Your task to perform on an android device: turn vacation reply on in the gmail app Image 0: 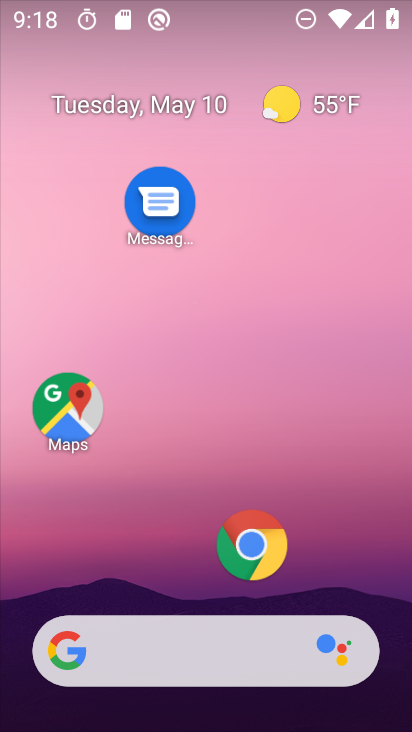
Step 0: drag from (186, 532) to (213, 173)
Your task to perform on an android device: turn vacation reply on in the gmail app Image 1: 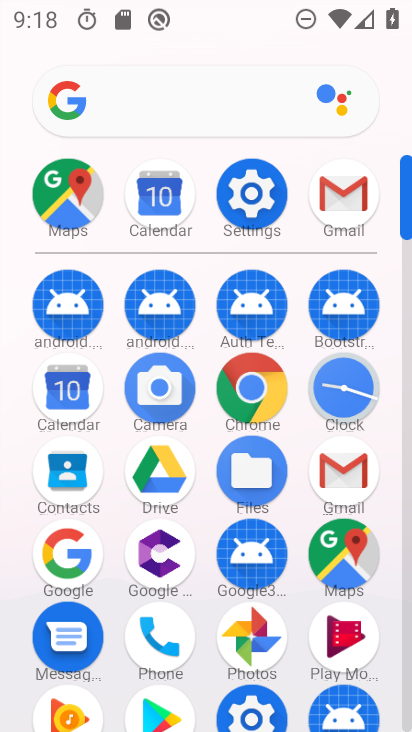
Step 1: click (338, 218)
Your task to perform on an android device: turn vacation reply on in the gmail app Image 2: 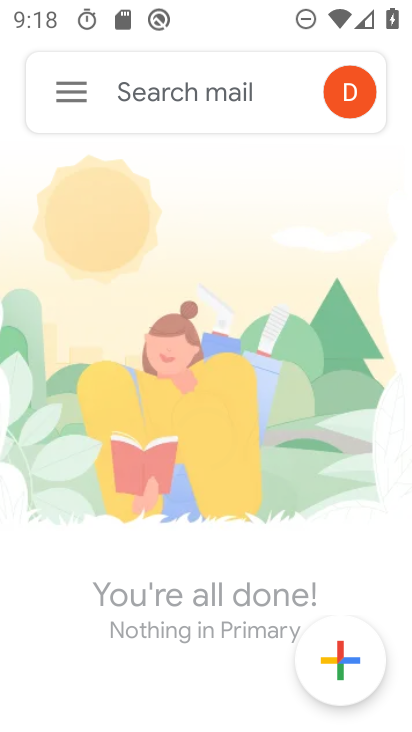
Step 2: click (77, 85)
Your task to perform on an android device: turn vacation reply on in the gmail app Image 3: 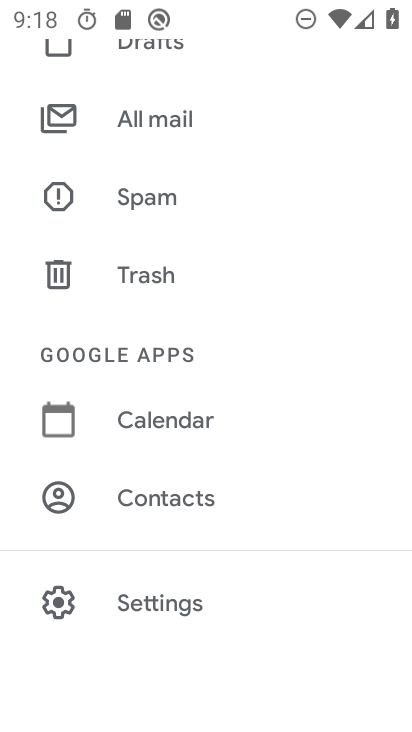
Step 3: click (152, 599)
Your task to perform on an android device: turn vacation reply on in the gmail app Image 4: 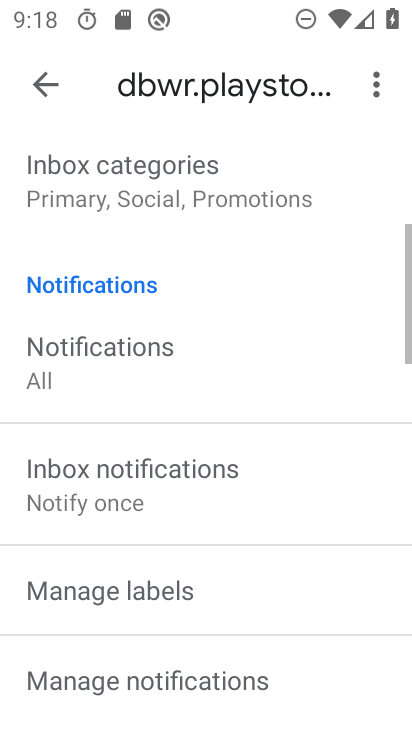
Step 4: drag from (184, 600) to (244, 219)
Your task to perform on an android device: turn vacation reply on in the gmail app Image 5: 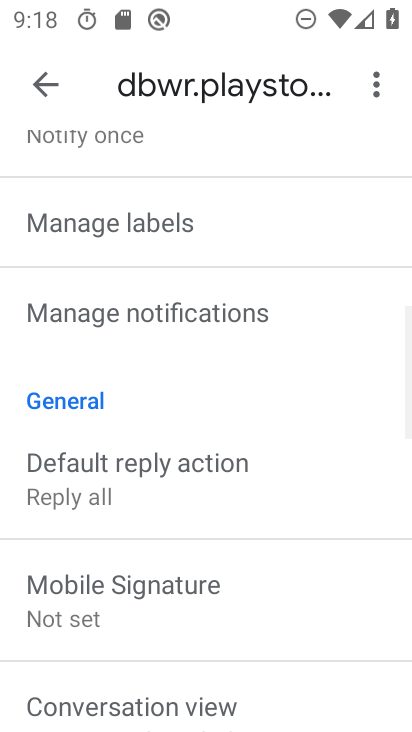
Step 5: drag from (146, 657) to (277, 204)
Your task to perform on an android device: turn vacation reply on in the gmail app Image 6: 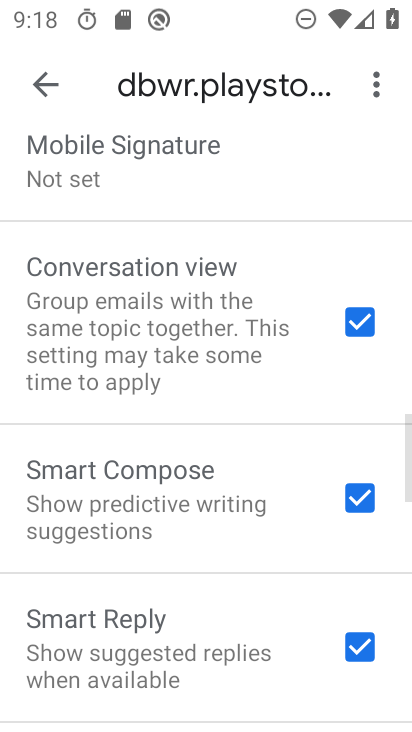
Step 6: drag from (221, 584) to (274, 243)
Your task to perform on an android device: turn vacation reply on in the gmail app Image 7: 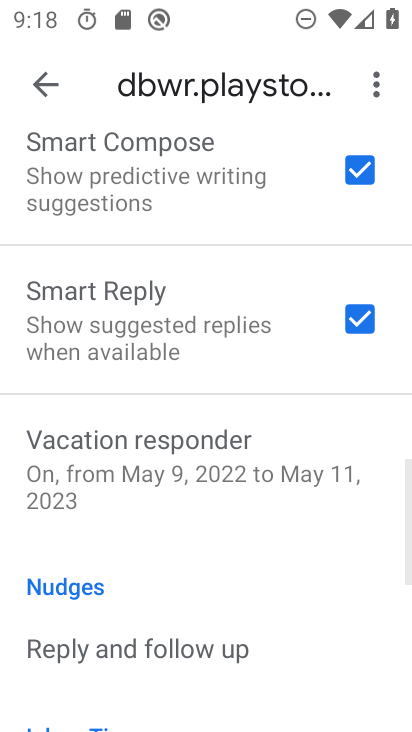
Step 7: click (195, 448)
Your task to perform on an android device: turn vacation reply on in the gmail app Image 8: 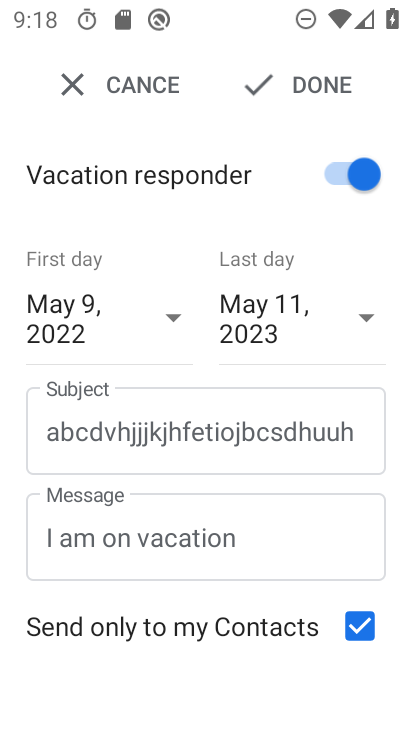
Step 8: task complete